Your task to perform on an android device: Toggle the flashlight Image 0: 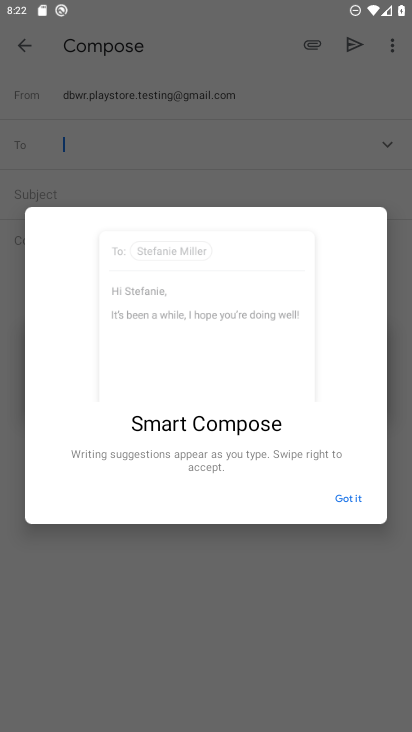
Step 0: drag from (235, 3) to (225, 559)
Your task to perform on an android device: Toggle the flashlight Image 1: 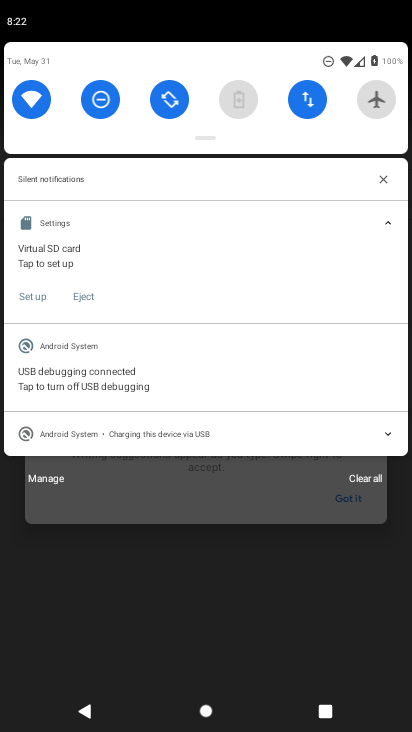
Step 1: task complete